Your task to perform on an android device: open app "HBO Max: Stream TV & Movies" (install if not already installed) and go to login screen Image 0: 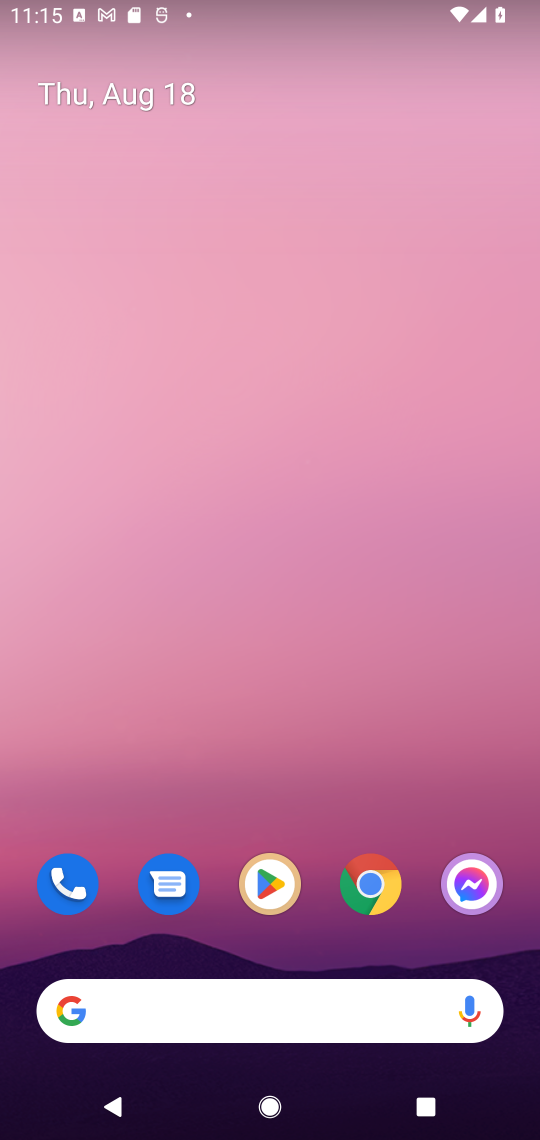
Step 0: drag from (195, 1013) to (219, 158)
Your task to perform on an android device: open app "HBO Max: Stream TV & Movies" (install if not already installed) and go to login screen Image 1: 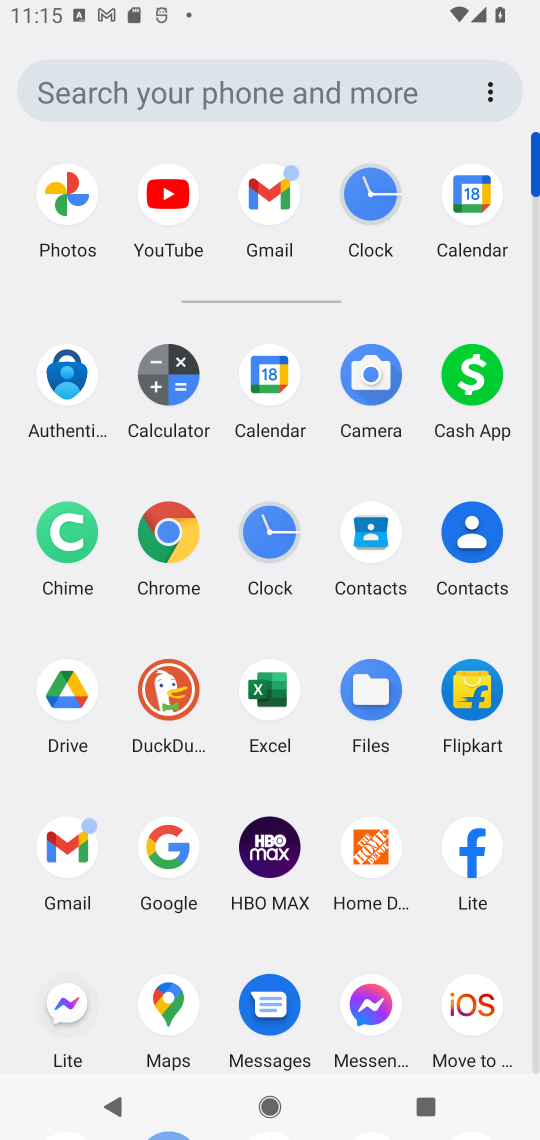
Step 1: drag from (318, 946) to (325, 392)
Your task to perform on an android device: open app "HBO Max: Stream TV & Movies" (install if not already installed) and go to login screen Image 2: 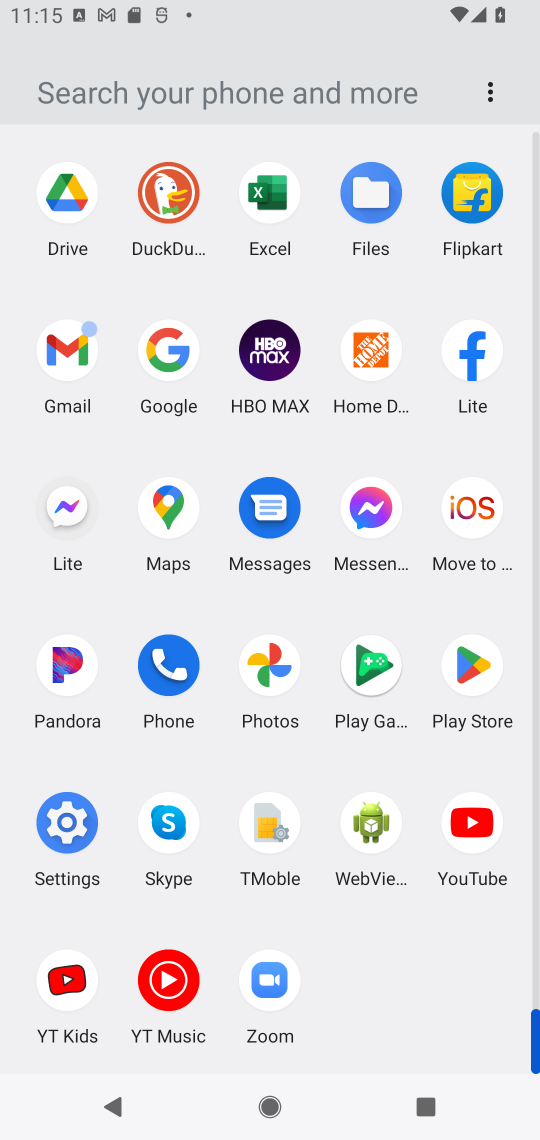
Step 2: click (469, 677)
Your task to perform on an android device: open app "HBO Max: Stream TV & Movies" (install if not already installed) and go to login screen Image 3: 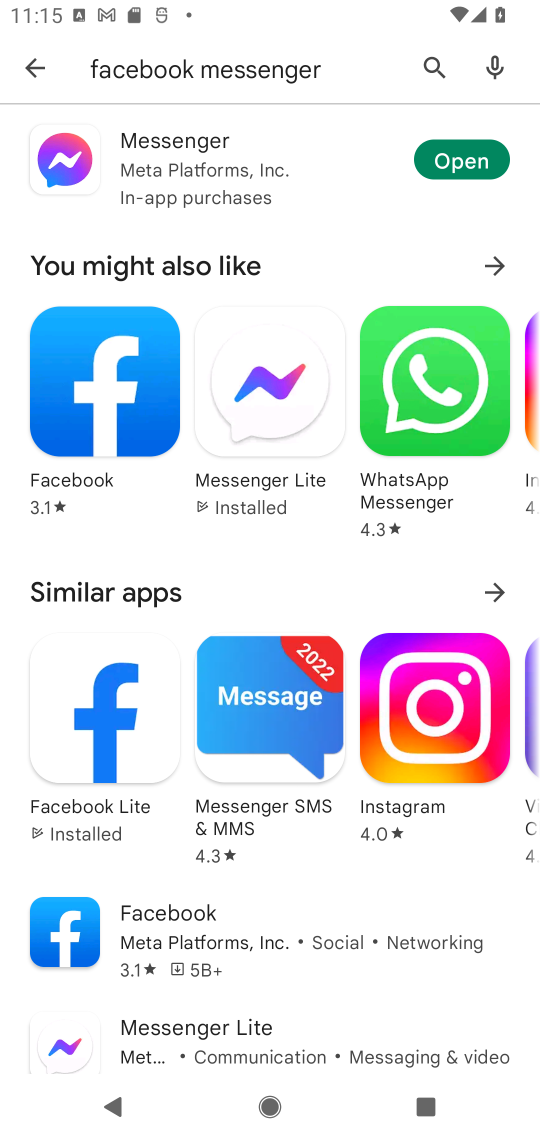
Step 3: press back button
Your task to perform on an android device: open app "HBO Max: Stream TV & Movies" (install if not already installed) and go to login screen Image 4: 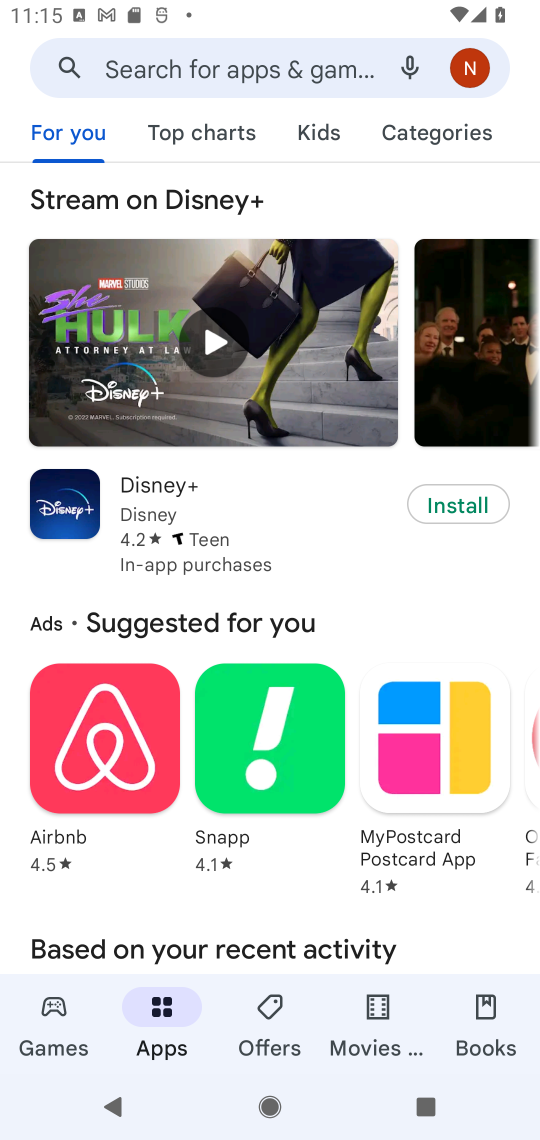
Step 4: click (226, 63)
Your task to perform on an android device: open app "HBO Max: Stream TV & Movies" (install if not already installed) and go to login screen Image 5: 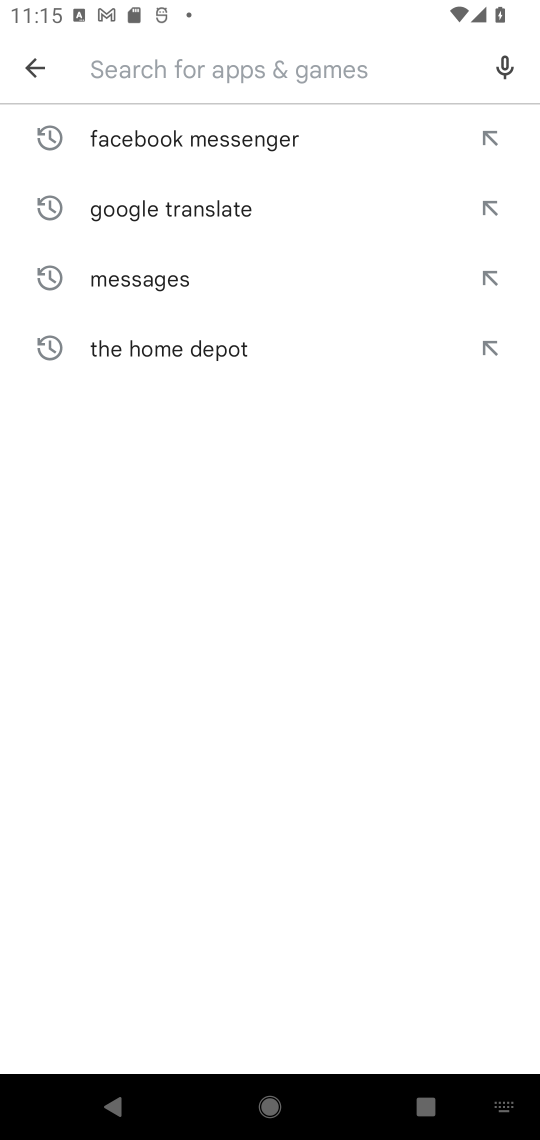
Step 5: type "HBO Max: Stream TV & Movies"
Your task to perform on an android device: open app "HBO Max: Stream TV & Movies" (install if not already installed) and go to login screen Image 6: 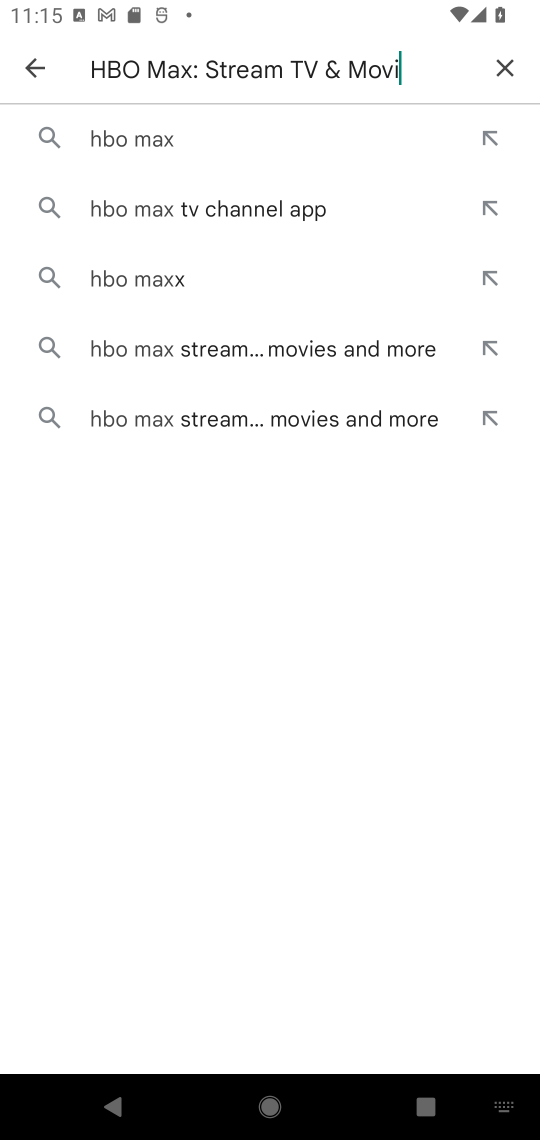
Step 6: type ""
Your task to perform on an android device: open app "HBO Max: Stream TV & Movies" (install if not already installed) and go to login screen Image 7: 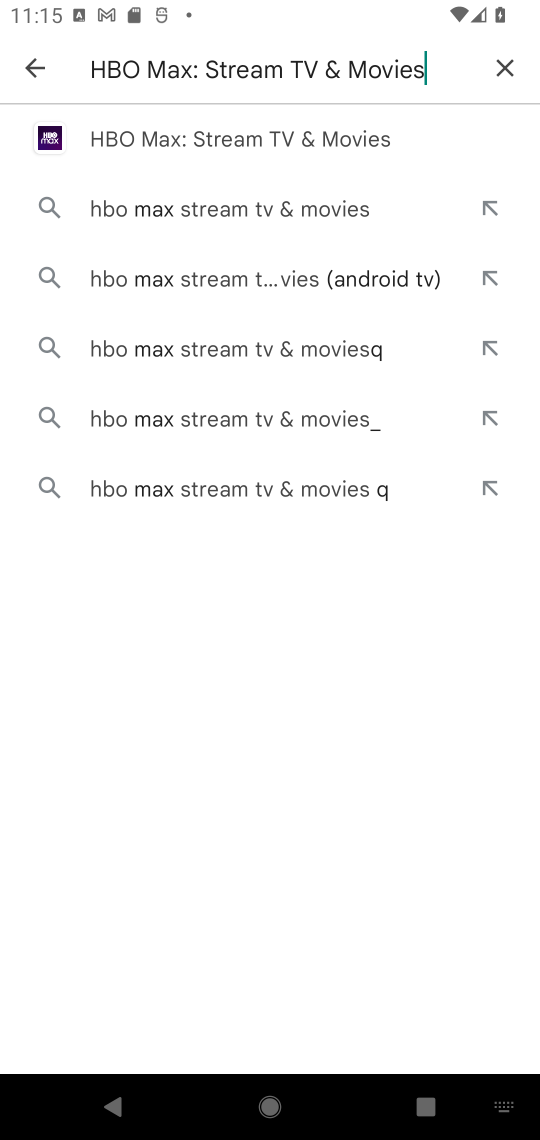
Step 7: click (270, 144)
Your task to perform on an android device: open app "HBO Max: Stream TV & Movies" (install if not already installed) and go to login screen Image 8: 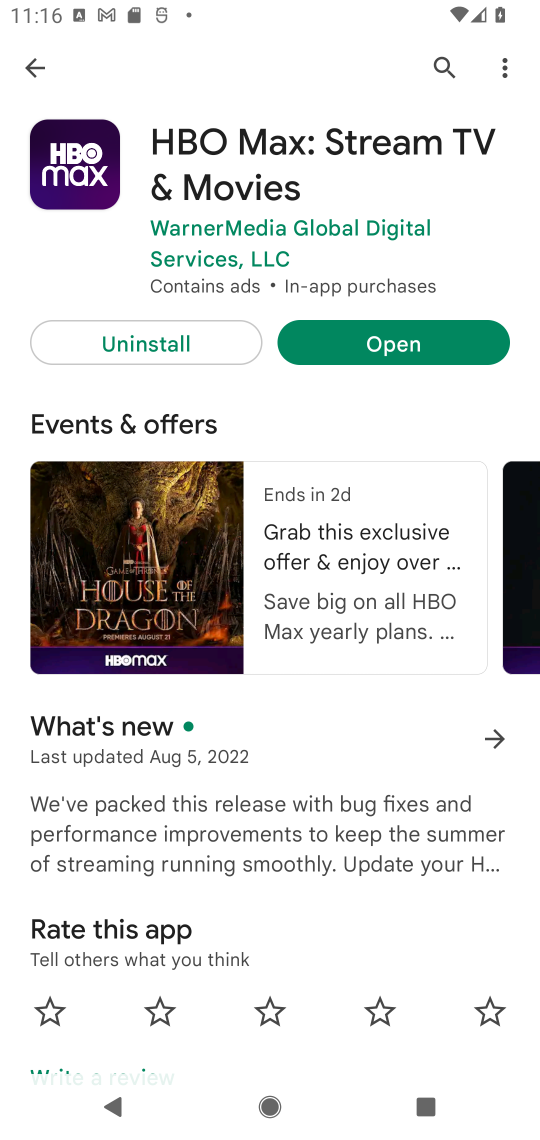
Step 8: click (361, 353)
Your task to perform on an android device: open app "HBO Max: Stream TV & Movies" (install if not already installed) and go to login screen Image 9: 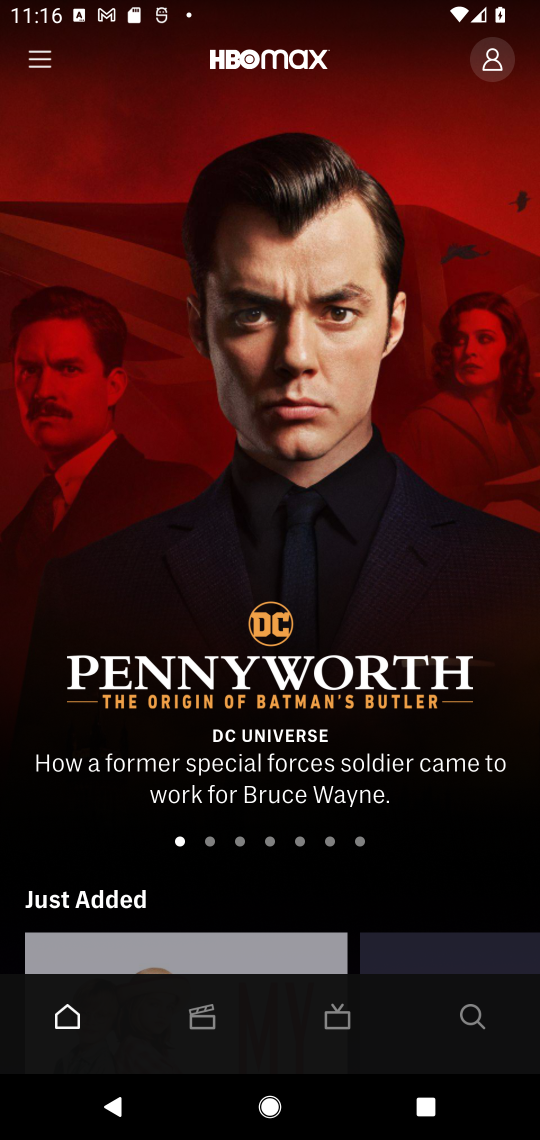
Step 9: click (496, 71)
Your task to perform on an android device: open app "HBO Max: Stream TV & Movies" (install if not already installed) and go to login screen Image 10: 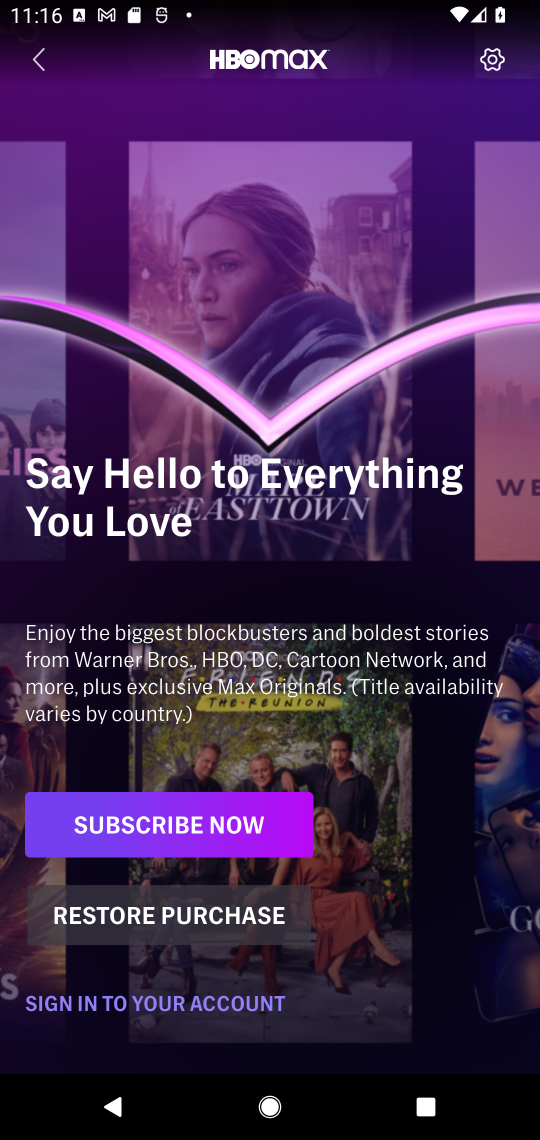
Step 10: click (78, 1007)
Your task to perform on an android device: open app "HBO Max: Stream TV & Movies" (install if not already installed) and go to login screen Image 11: 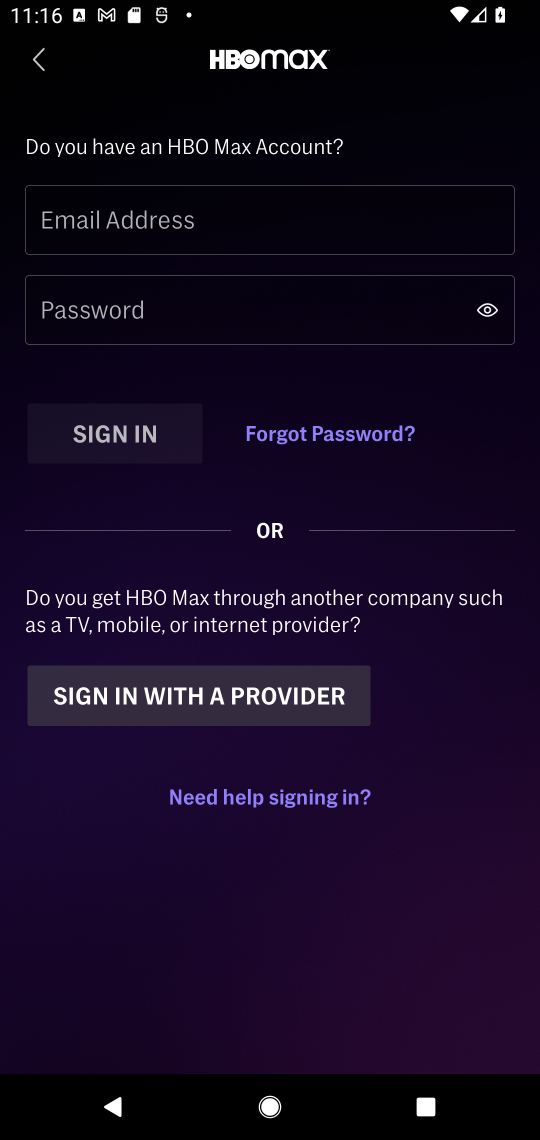
Step 11: task complete